Your task to perform on an android device: install app "NewsBreak: Local News & Alerts" Image 0: 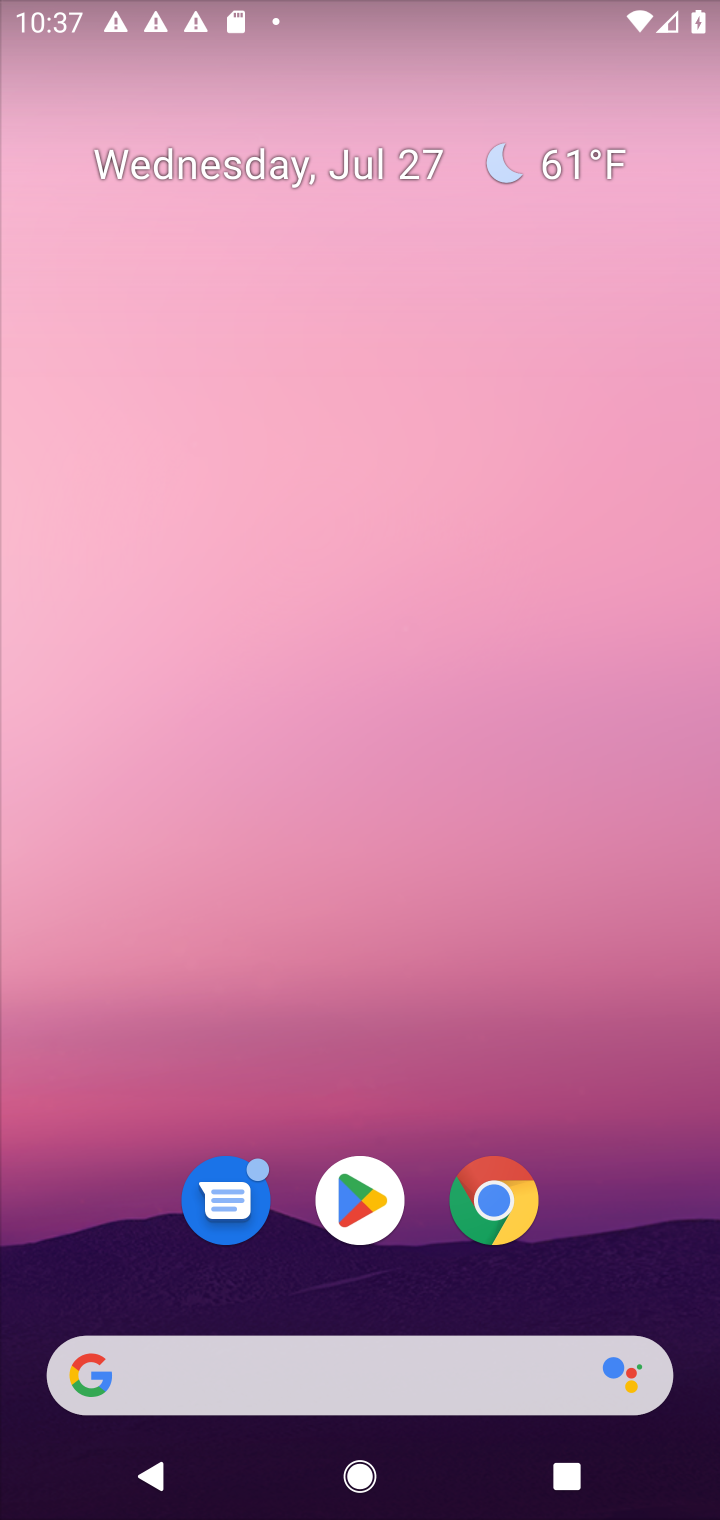
Step 0: click (363, 1205)
Your task to perform on an android device: install app "NewsBreak: Local News & Alerts" Image 1: 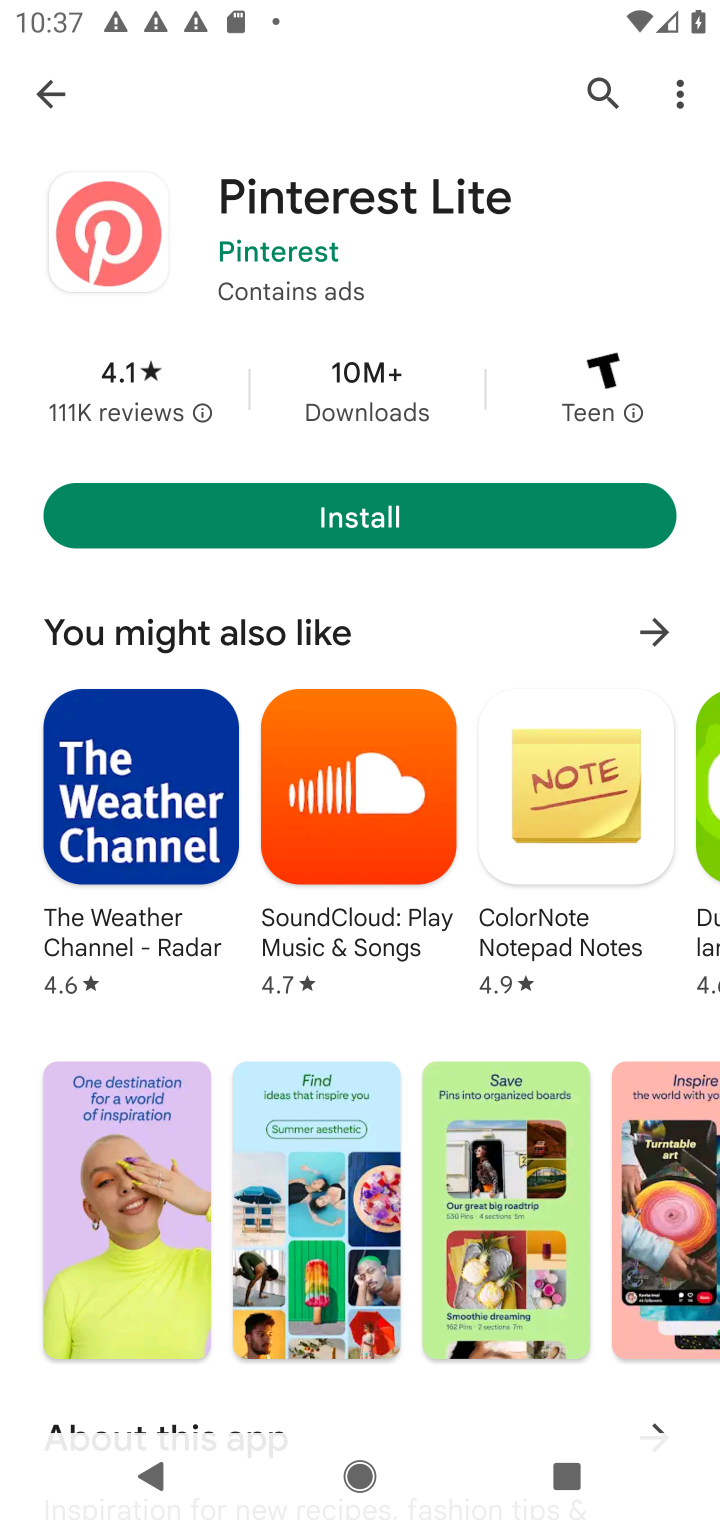
Step 1: click (51, 95)
Your task to perform on an android device: install app "NewsBreak: Local News & Alerts" Image 2: 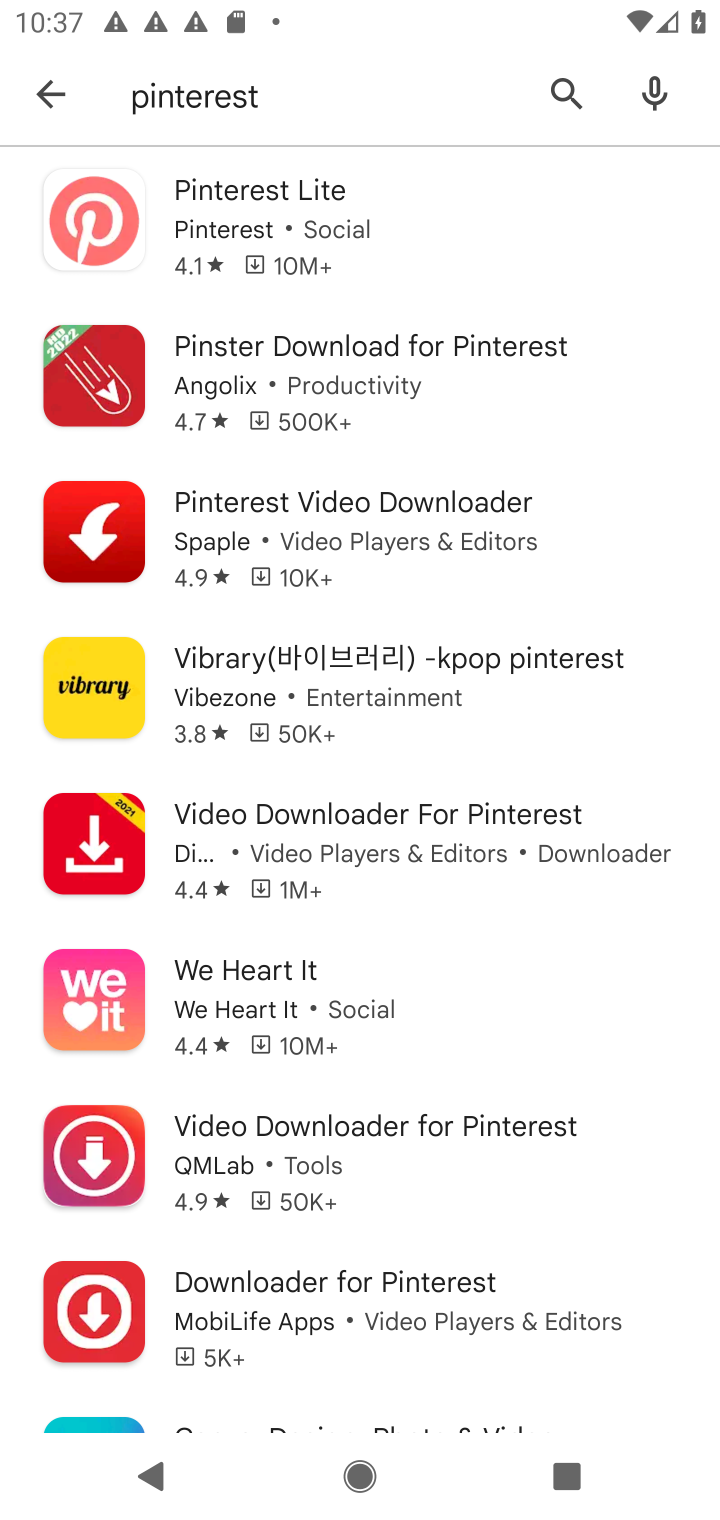
Step 2: click (51, 95)
Your task to perform on an android device: install app "NewsBreak: Local News & Alerts" Image 3: 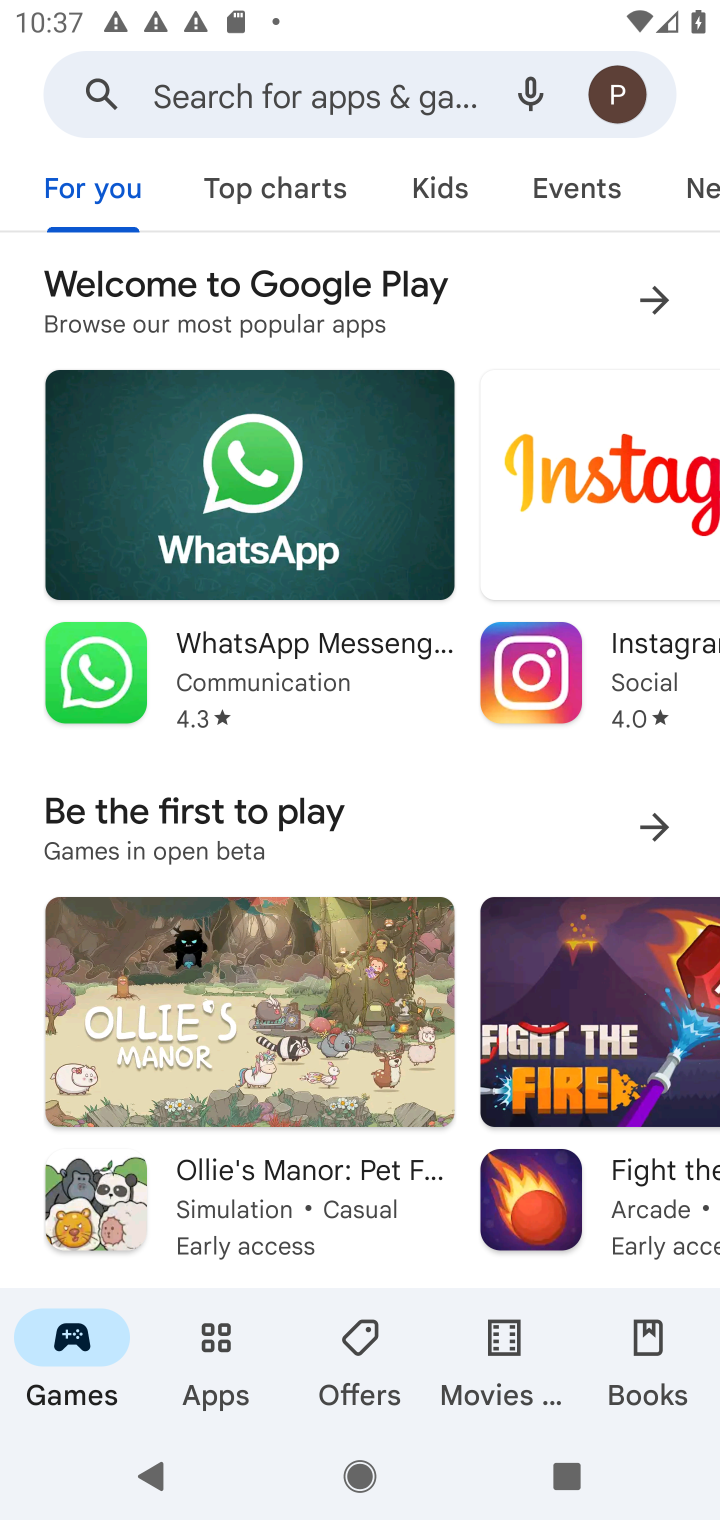
Step 3: click (198, 90)
Your task to perform on an android device: install app "NewsBreak: Local News & Alerts" Image 4: 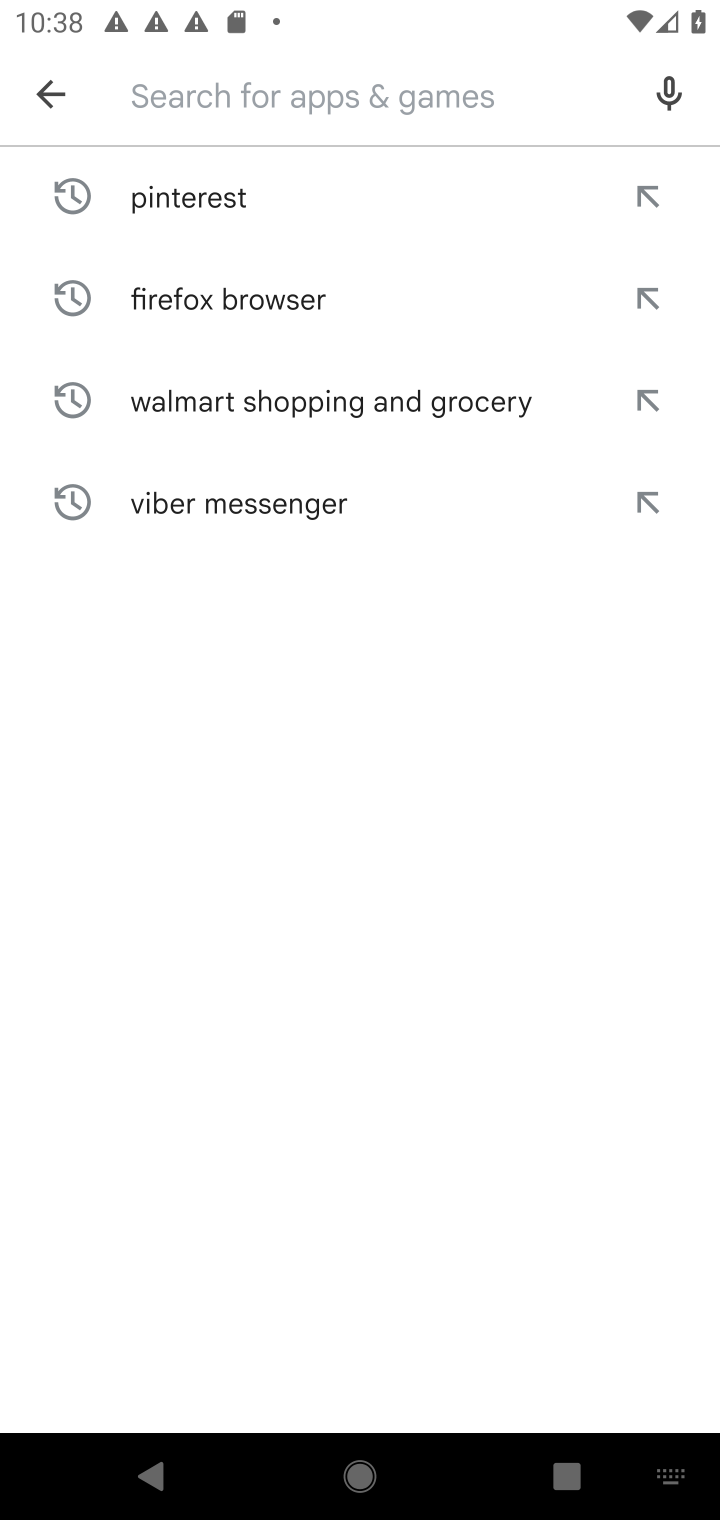
Step 4: click (330, 78)
Your task to perform on an android device: install app "NewsBreak: Local News & Alerts" Image 5: 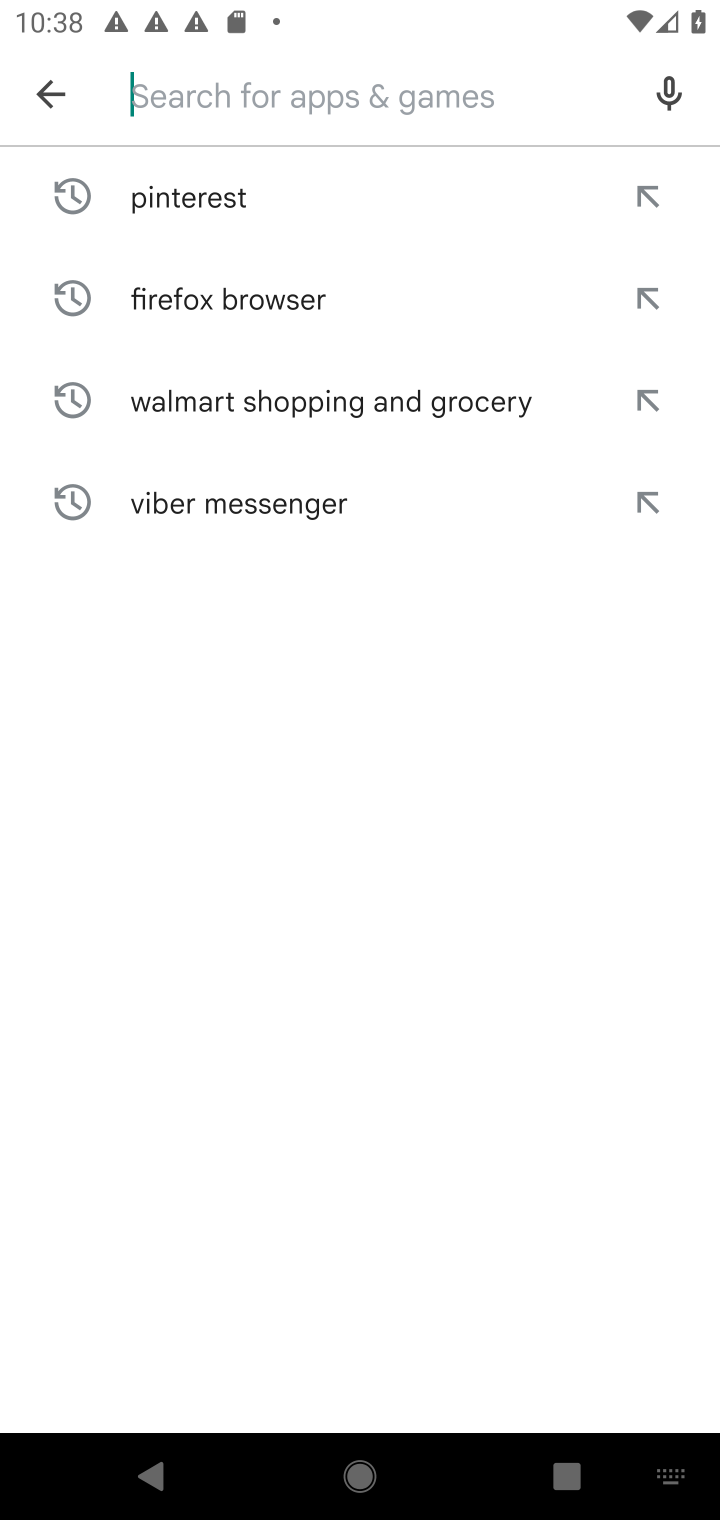
Step 5: type "NewsBreak: Local News & Alerts"
Your task to perform on an android device: install app "NewsBreak: Local News & Alerts" Image 6: 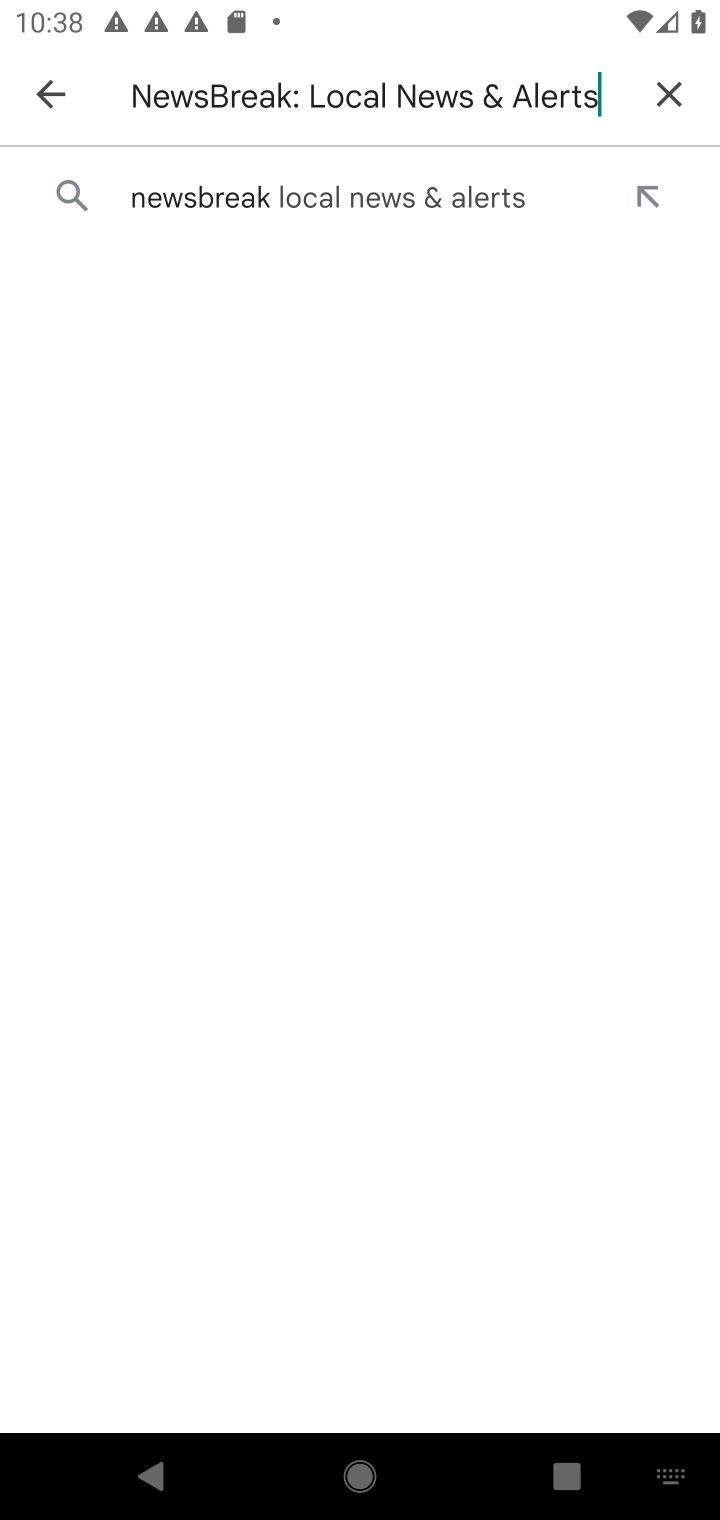
Step 6: click (438, 189)
Your task to perform on an android device: install app "NewsBreak: Local News & Alerts" Image 7: 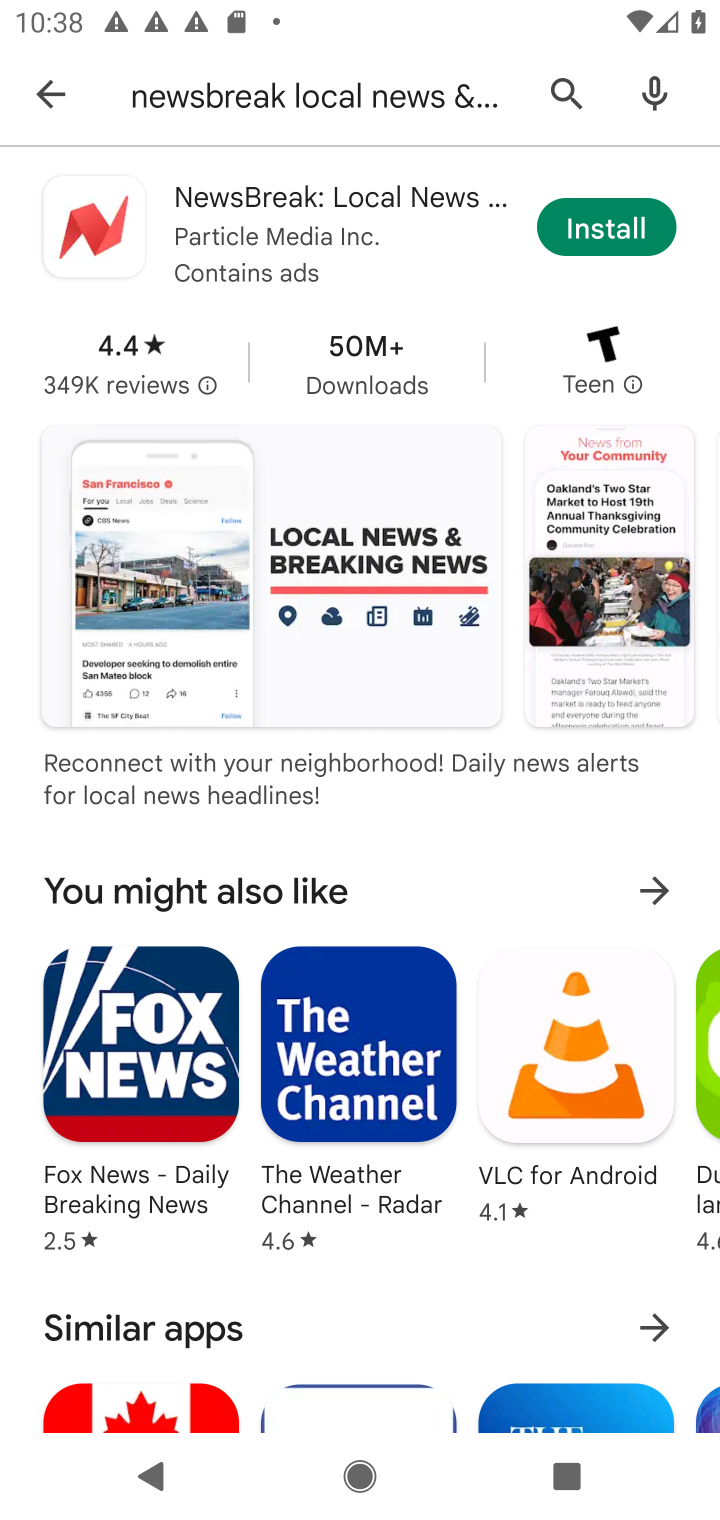
Step 7: click (571, 228)
Your task to perform on an android device: install app "NewsBreak: Local News & Alerts" Image 8: 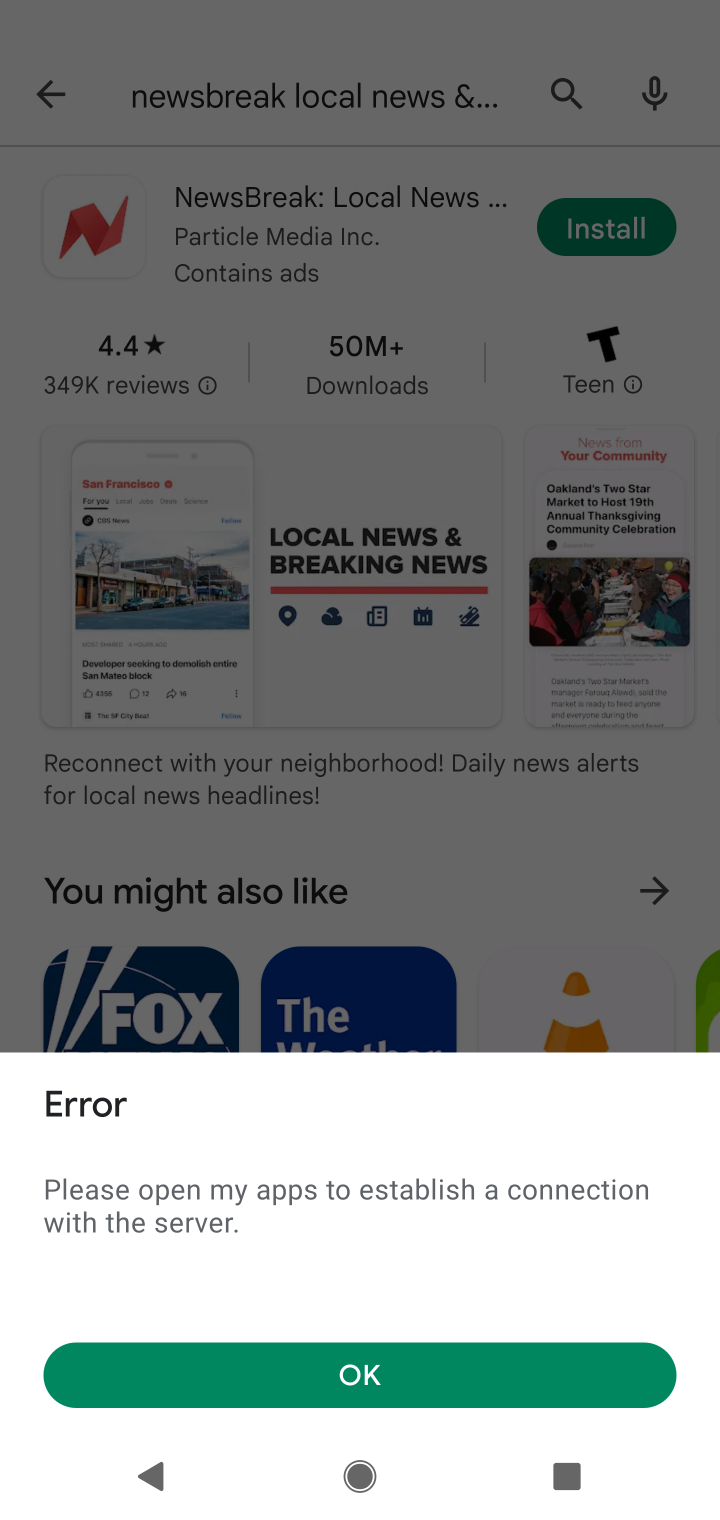
Step 8: click (381, 1384)
Your task to perform on an android device: install app "NewsBreak: Local News & Alerts" Image 9: 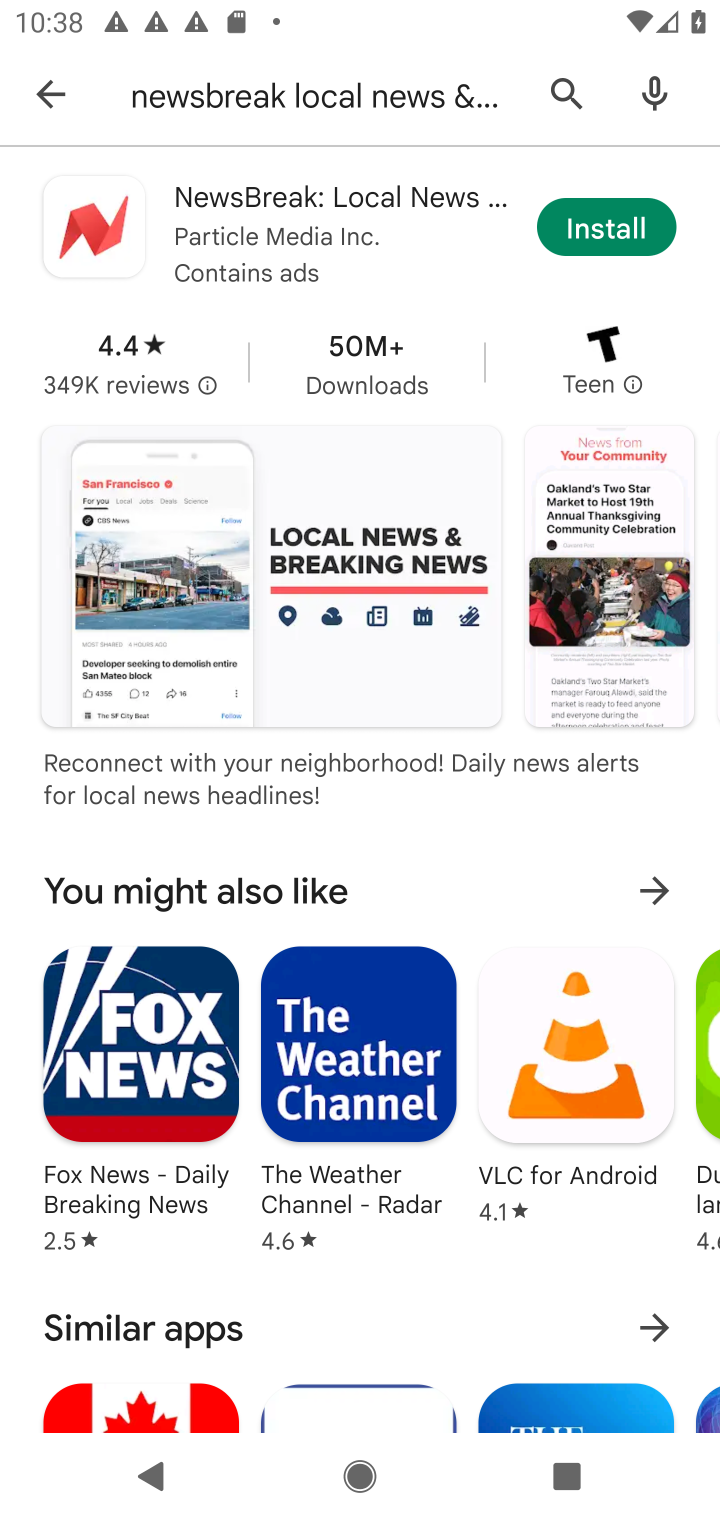
Step 9: click (585, 229)
Your task to perform on an android device: install app "NewsBreak: Local News & Alerts" Image 10: 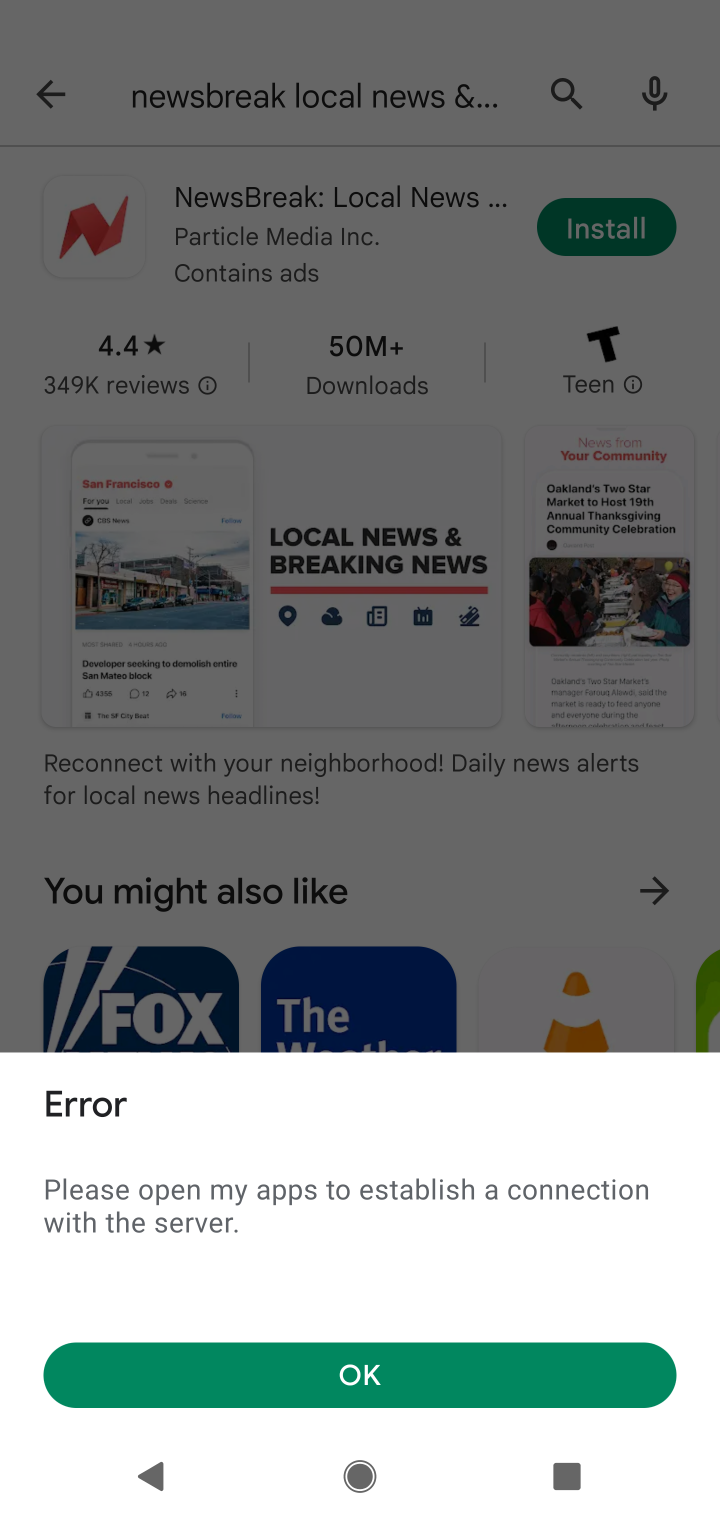
Step 10: click (365, 1387)
Your task to perform on an android device: install app "NewsBreak: Local News & Alerts" Image 11: 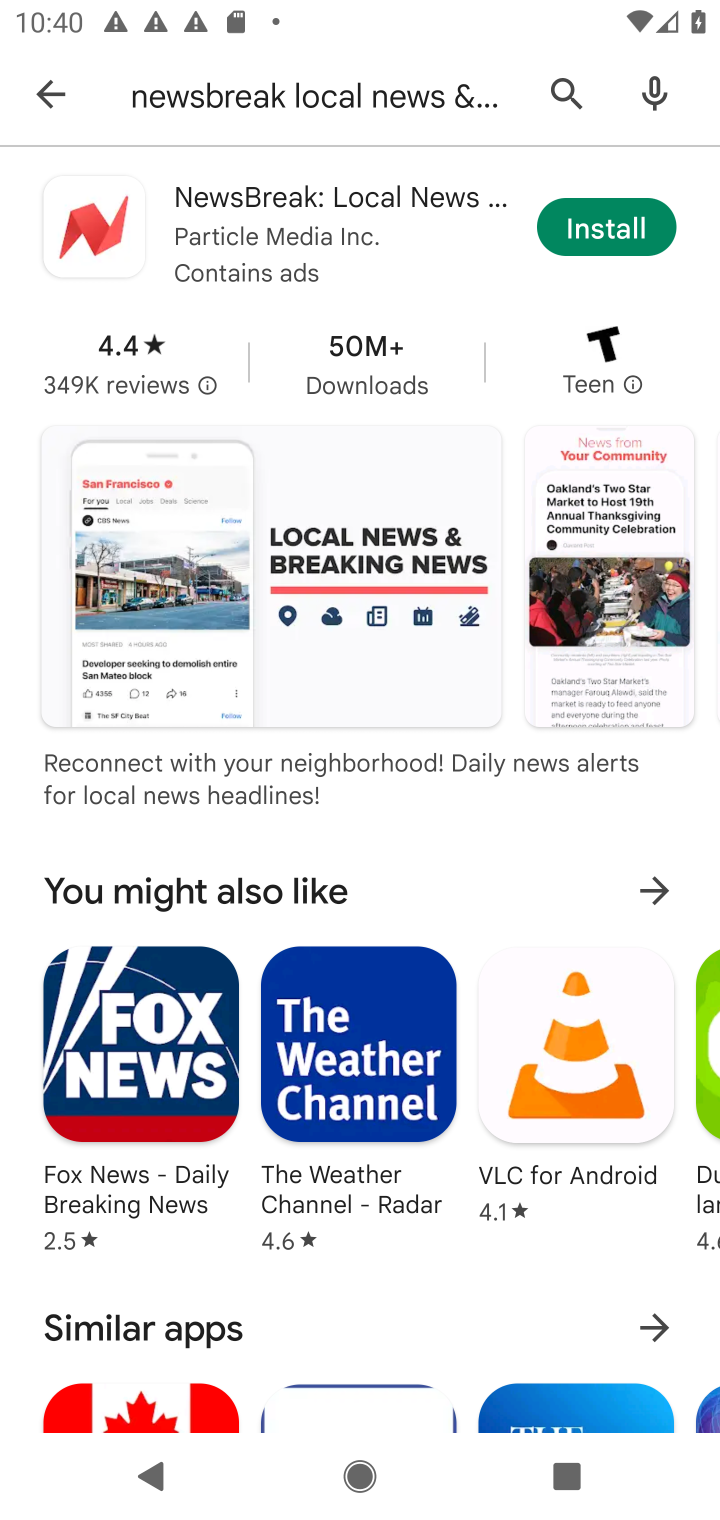
Step 11: task complete